Your task to perform on an android device: turn on improve location accuracy Image 0: 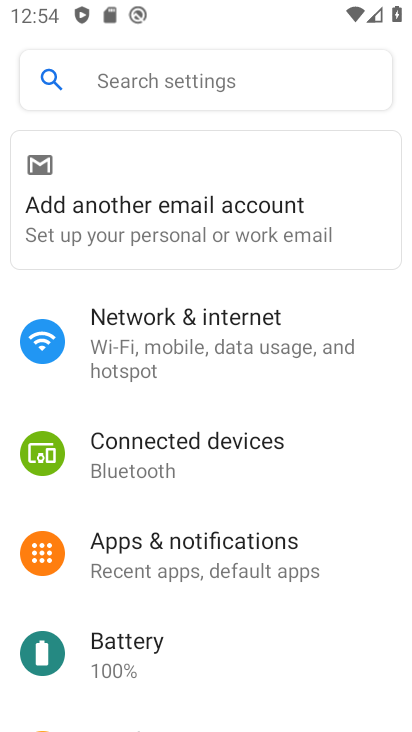
Step 0: drag from (191, 591) to (261, 133)
Your task to perform on an android device: turn on improve location accuracy Image 1: 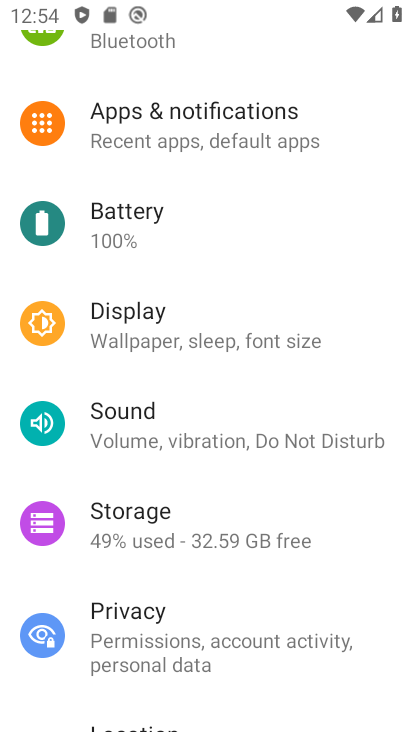
Step 1: drag from (176, 579) to (265, 167)
Your task to perform on an android device: turn on improve location accuracy Image 2: 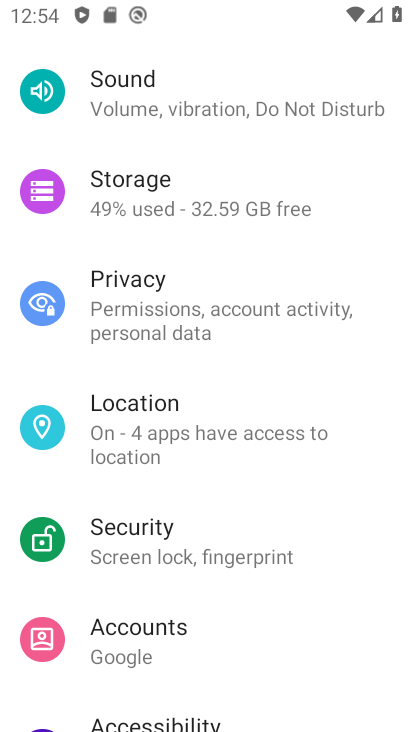
Step 2: click (141, 427)
Your task to perform on an android device: turn on improve location accuracy Image 3: 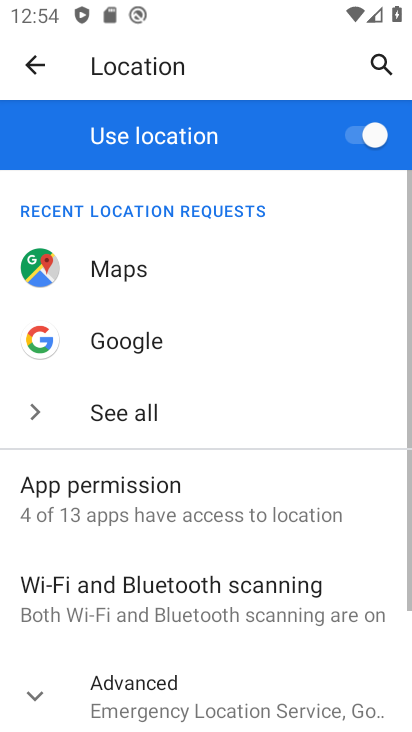
Step 3: drag from (153, 552) to (208, 236)
Your task to perform on an android device: turn on improve location accuracy Image 4: 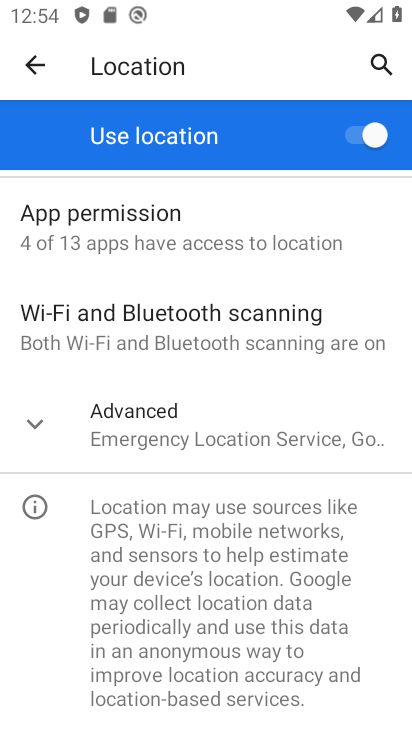
Step 4: click (154, 441)
Your task to perform on an android device: turn on improve location accuracy Image 5: 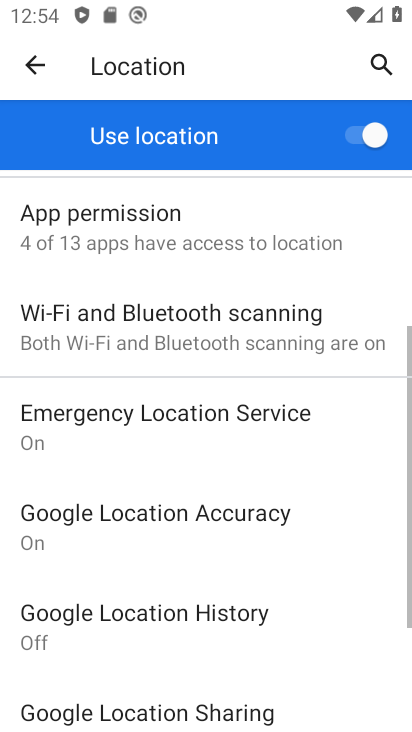
Step 5: drag from (130, 530) to (172, 359)
Your task to perform on an android device: turn on improve location accuracy Image 6: 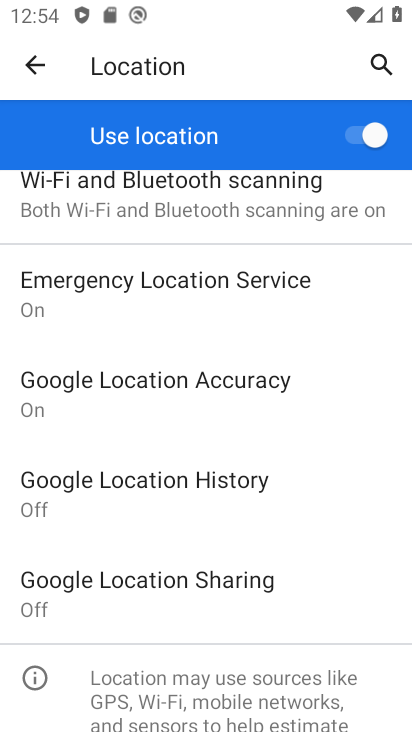
Step 6: click (145, 398)
Your task to perform on an android device: turn on improve location accuracy Image 7: 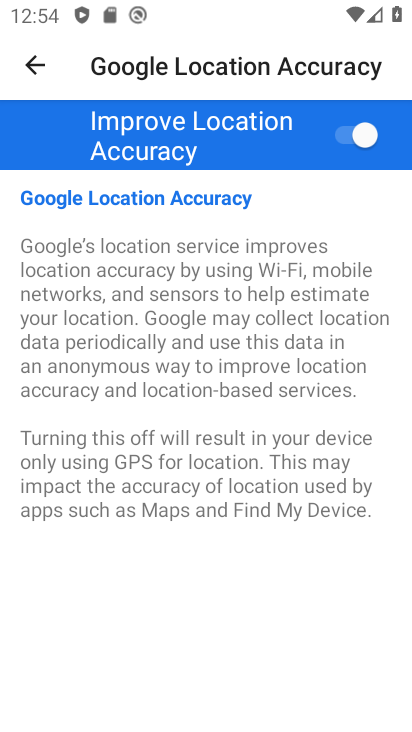
Step 7: task complete